Your task to perform on an android device: turn on notifications settings in the gmail app Image 0: 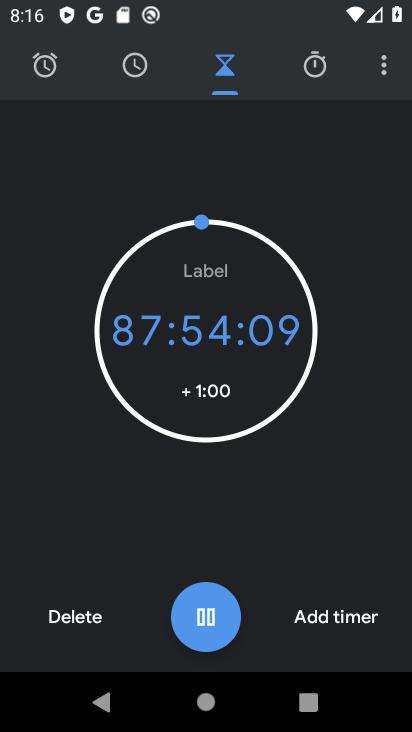
Step 0: press home button
Your task to perform on an android device: turn on notifications settings in the gmail app Image 1: 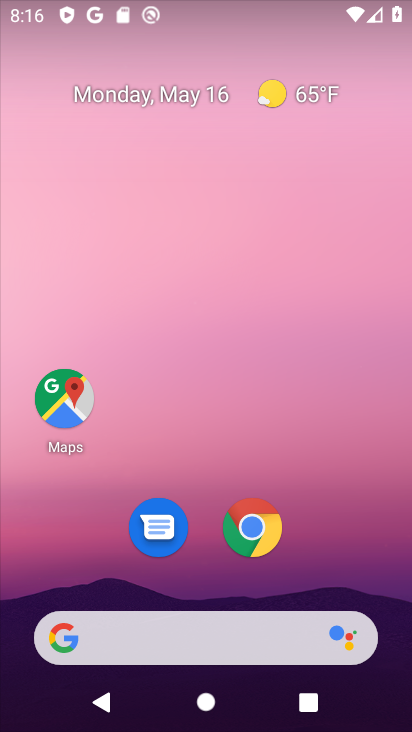
Step 1: drag from (310, 443) to (312, 171)
Your task to perform on an android device: turn on notifications settings in the gmail app Image 2: 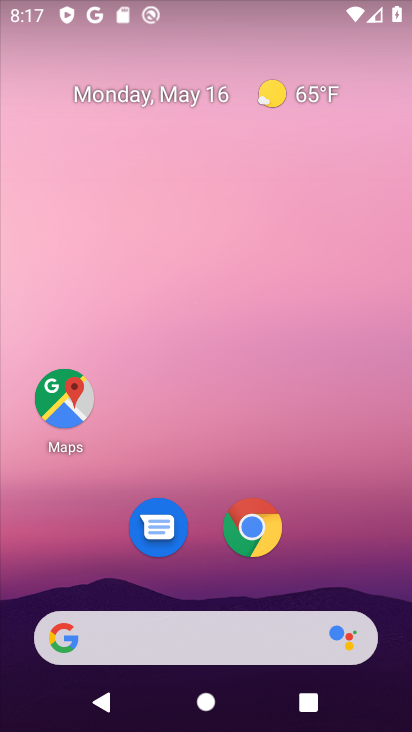
Step 2: drag from (311, 546) to (307, 226)
Your task to perform on an android device: turn on notifications settings in the gmail app Image 3: 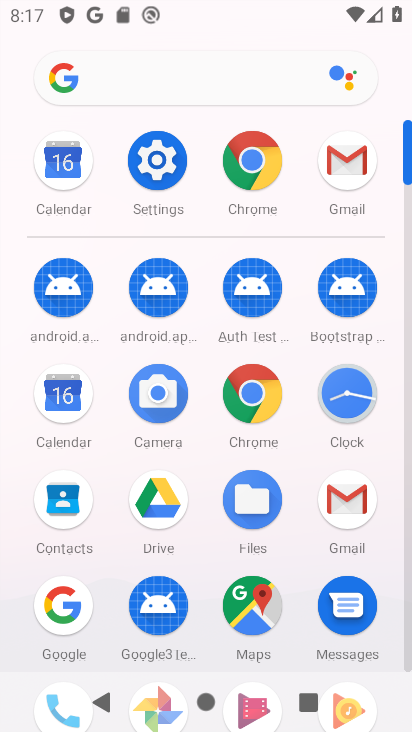
Step 3: click (339, 494)
Your task to perform on an android device: turn on notifications settings in the gmail app Image 4: 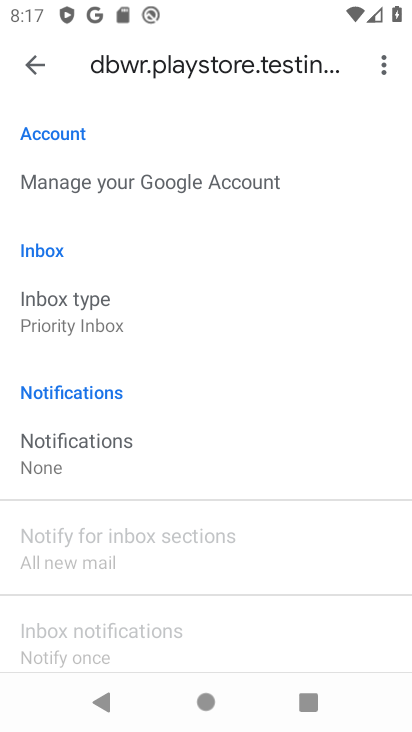
Step 4: click (93, 436)
Your task to perform on an android device: turn on notifications settings in the gmail app Image 5: 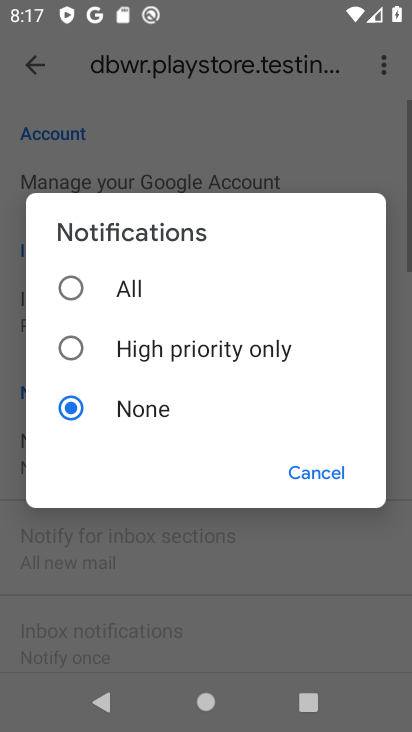
Step 5: click (119, 279)
Your task to perform on an android device: turn on notifications settings in the gmail app Image 6: 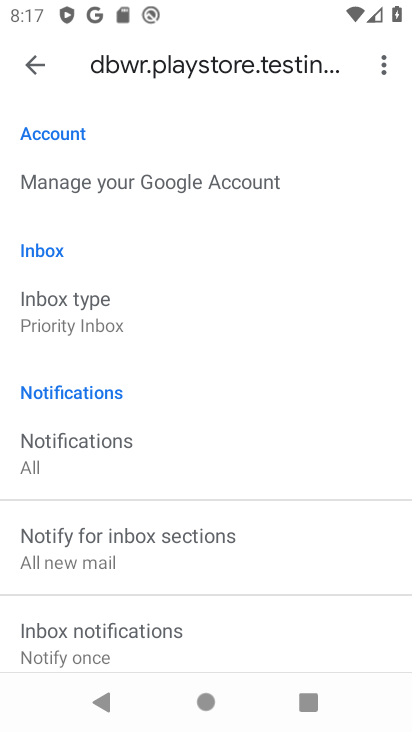
Step 6: task complete